Your task to perform on an android device: turn off sleep mode Image 0: 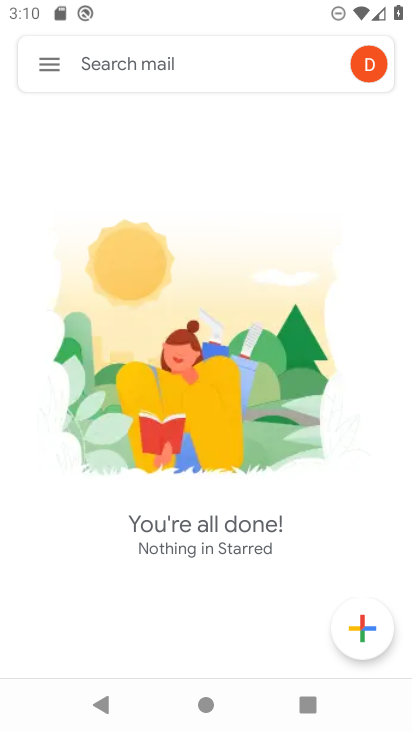
Step 0: press home button
Your task to perform on an android device: turn off sleep mode Image 1: 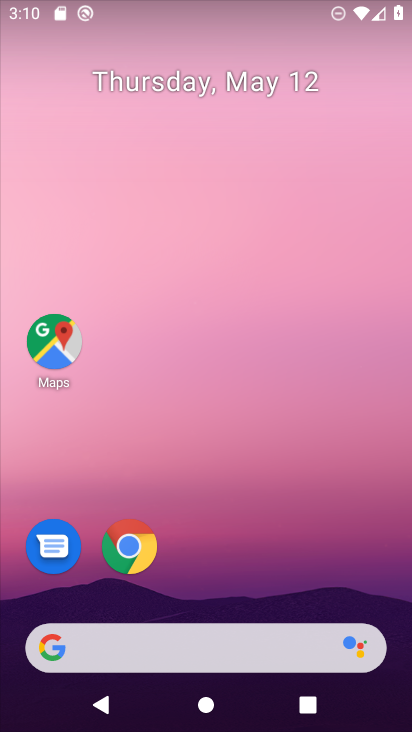
Step 1: drag from (256, 551) to (259, 207)
Your task to perform on an android device: turn off sleep mode Image 2: 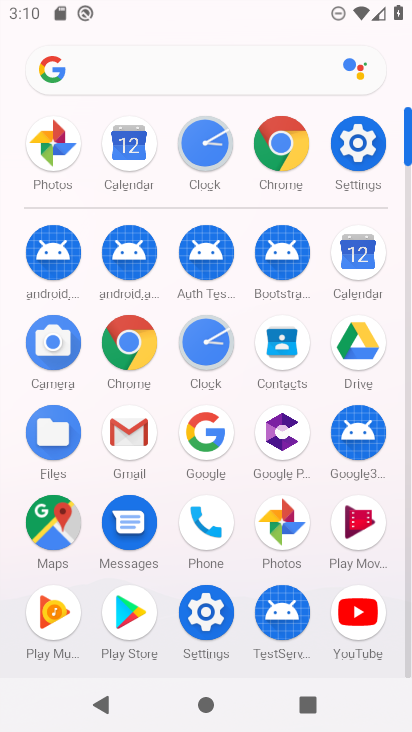
Step 2: click (360, 136)
Your task to perform on an android device: turn off sleep mode Image 3: 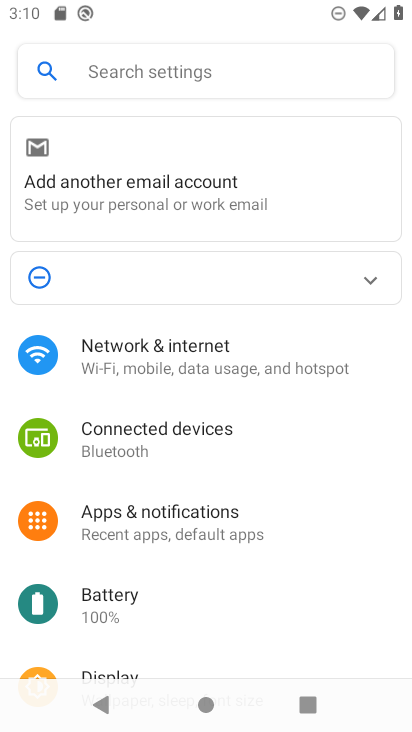
Step 3: task complete